Your task to perform on an android device: Open Youtube and go to the subscriptions tab Image 0: 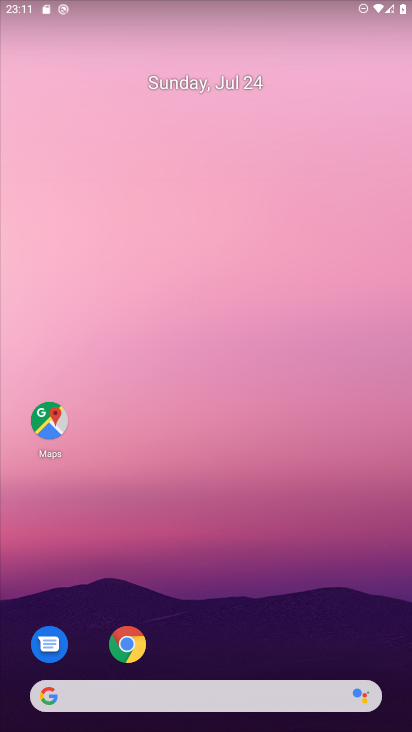
Step 0: drag from (378, 643) to (322, 48)
Your task to perform on an android device: Open Youtube and go to the subscriptions tab Image 1: 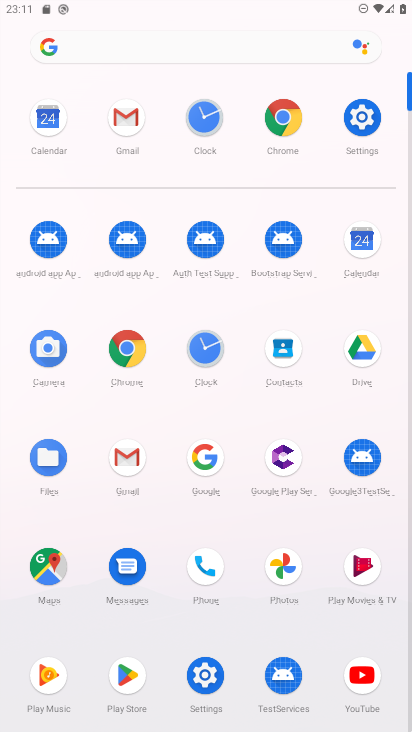
Step 1: click (361, 675)
Your task to perform on an android device: Open Youtube and go to the subscriptions tab Image 2: 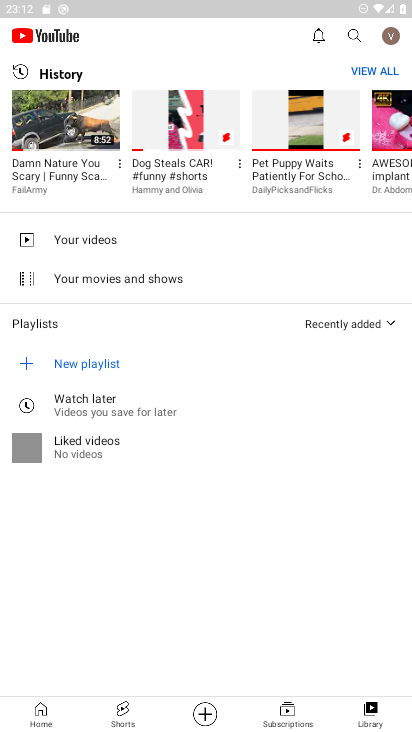
Step 2: click (288, 710)
Your task to perform on an android device: Open Youtube and go to the subscriptions tab Image 3: 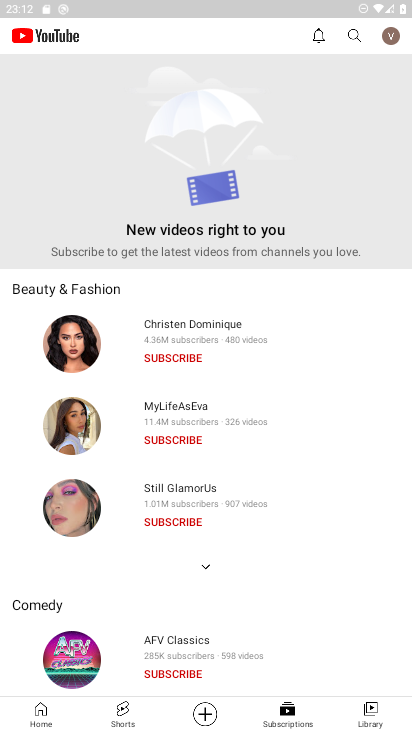
Step 3: task complete